Your task to perform on an android device: change the clock display to analog Image 0: 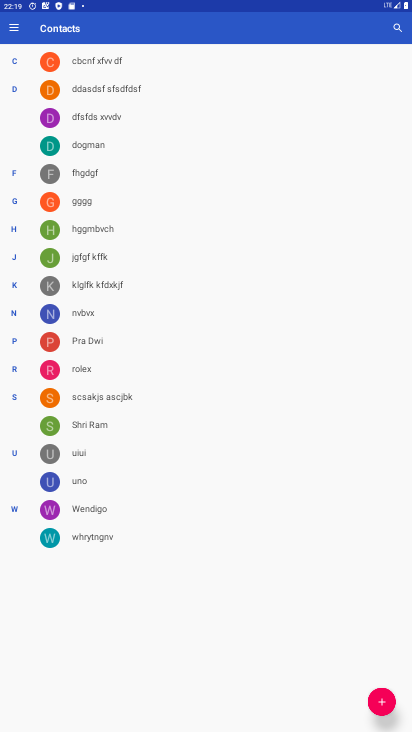
Step 0: press home button
Your task to perform on an android device: change the clock display to analog Image 1: 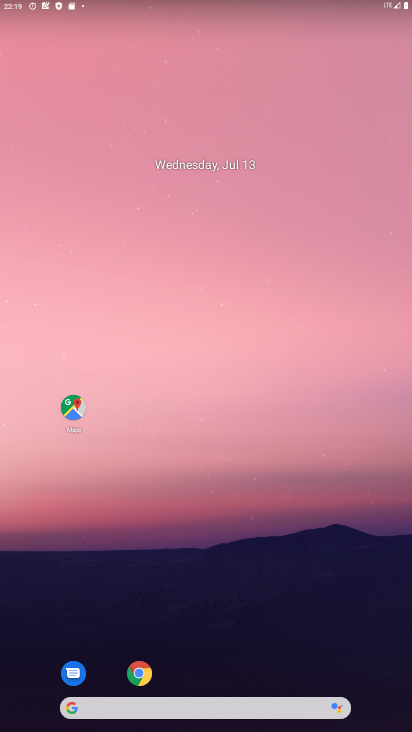
Step 1: drag from (198, 680) to (235, 279)
Your task to perform on an android device: change the clock display to analog Image 2: 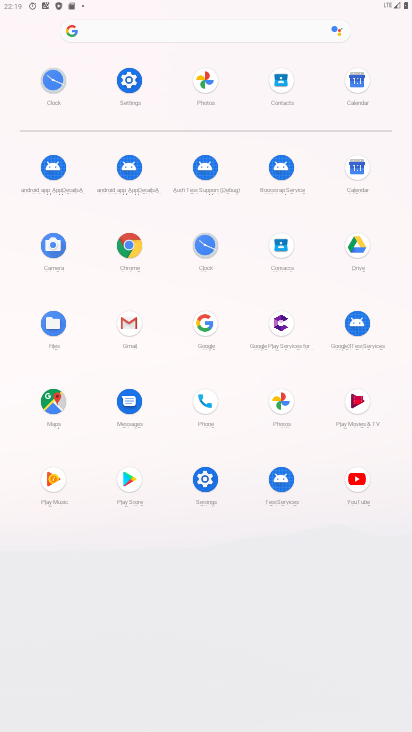
Step 2: click (205, 245)
Your task to perform on an android device: change the clock display to analog Image 3: 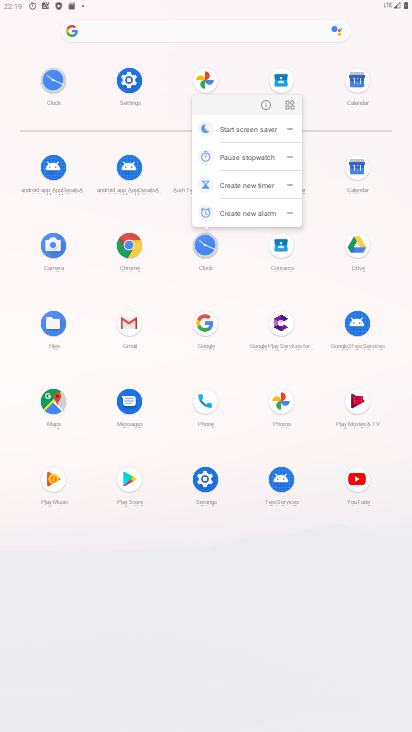
Step 3: click (267, 104)
Your task to perform on an android device: change the clock display to analog Image 4: 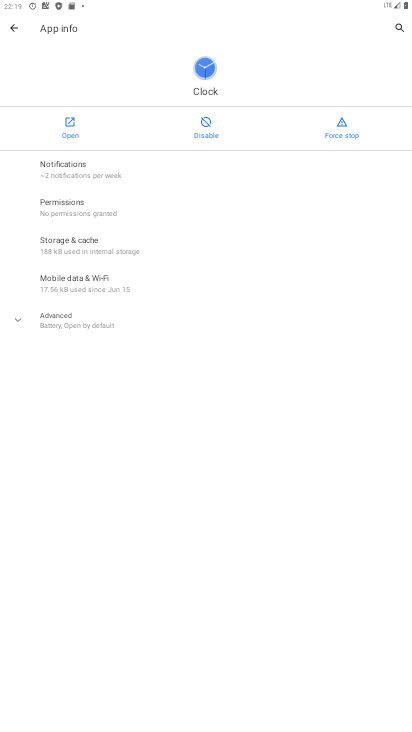
Step 4: click (72, 124)
Your task to perform on an android device: change the clock display to analog Image 5: 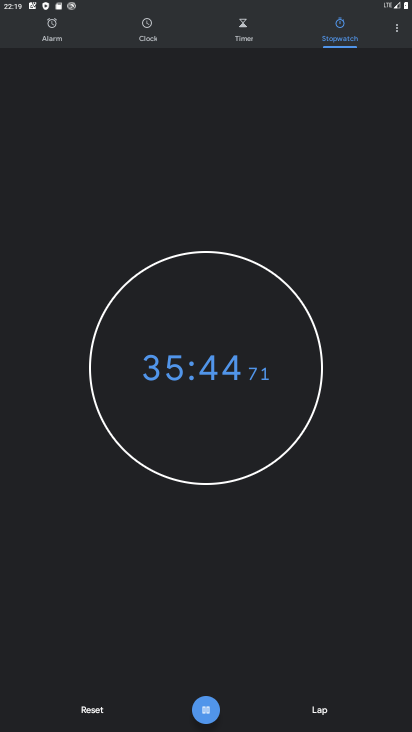
Step 5: click (88, 704)
Your task to perform on an android device: change the clock display to analog Image 6: 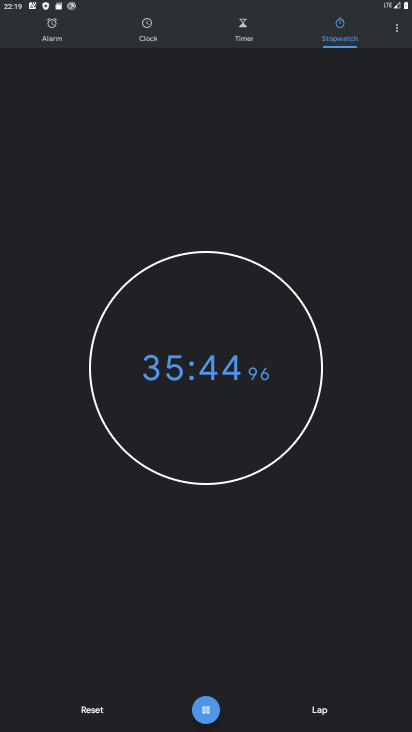
Step 6: click (87, 705)
Your task to perform on an android device: change the clock display to analog Image 7: 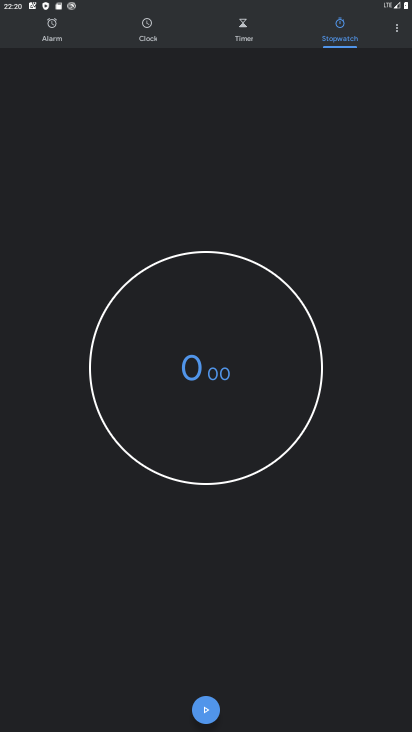
Step 7: click (394, 33)
Your task to perform on an android device: change the clock display to analog Image 8: 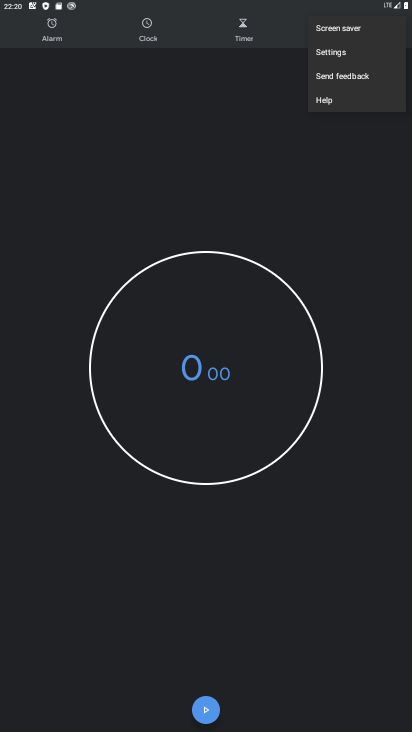
Step 8: click (333, 62)
Your task to perform on an android device: change the clock display to analog Image 9: 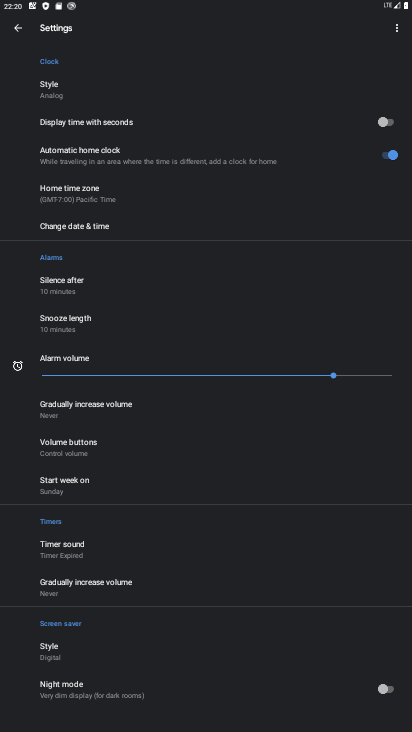
Step 9: click (90, 97)
Your task to perform on an android device: change the clock display to analog Image 10: 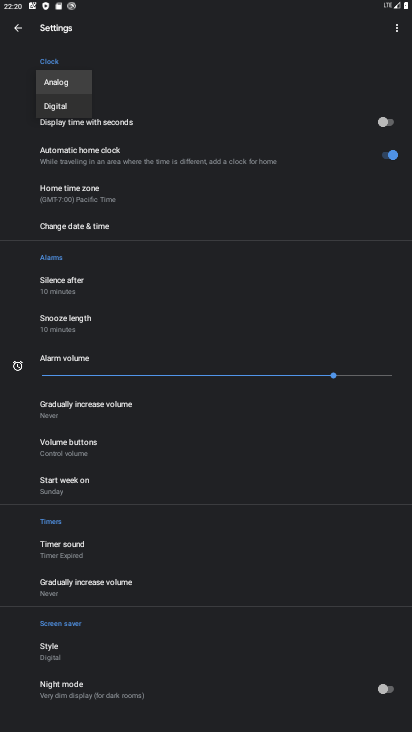
Step 10: task complete